Your task to perform on an android device: manage bookmarks in the chrome app Image 0: 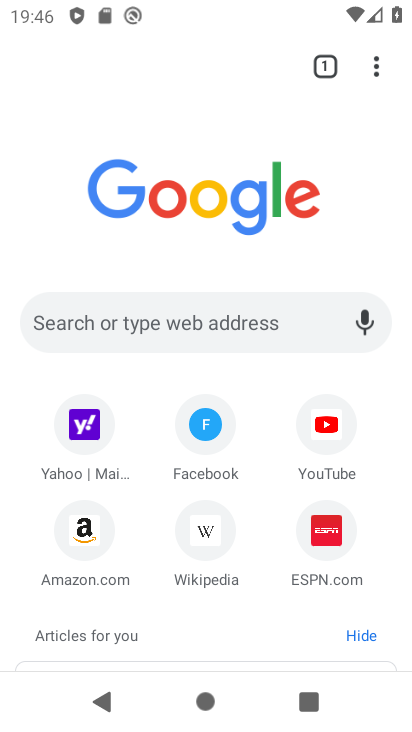
Step 0: click (375, 66)
Your task to perform on an android device: manage bookmarks in the chrome app Image 1: 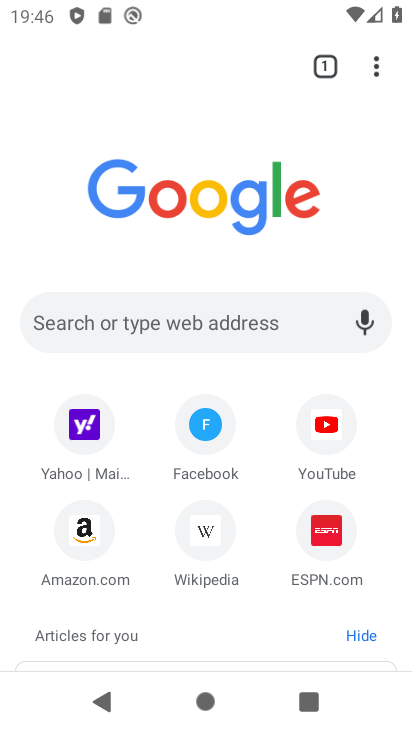
Step 1: click (377, 66)
Your task to perform on an android device: manage bookmarks in the chrome app Image 2: 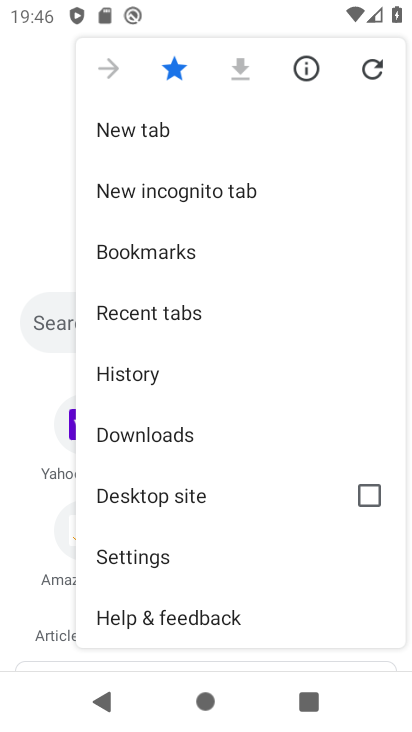
Step 2: click (203, 248)
Your task to perform on an android device: manage bookmarks in the chrome app Image 3: 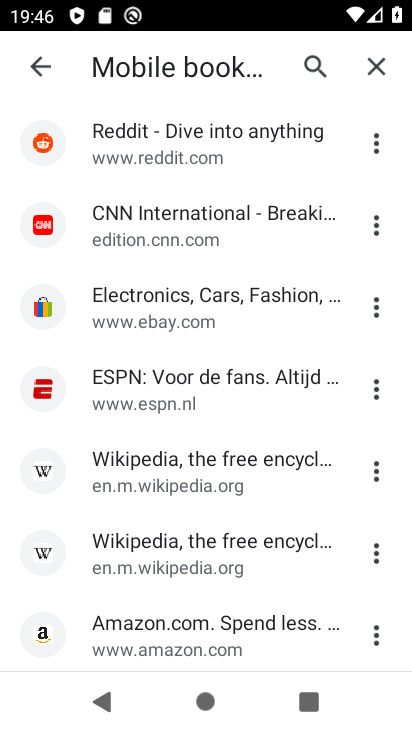
Step 3: click (375, 227)
Your task to perform on an android device: manage bookmarks in the chrome app Image 4: 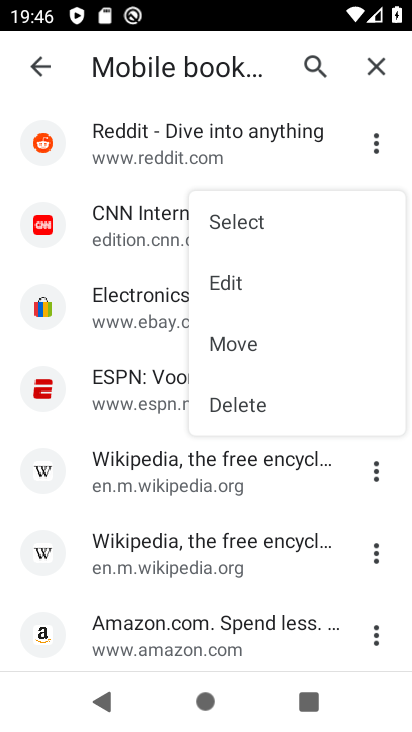
Step 4: click (278, 276)
Your task to perform on an android device: manage bookmarks in the chrome app Image 5: 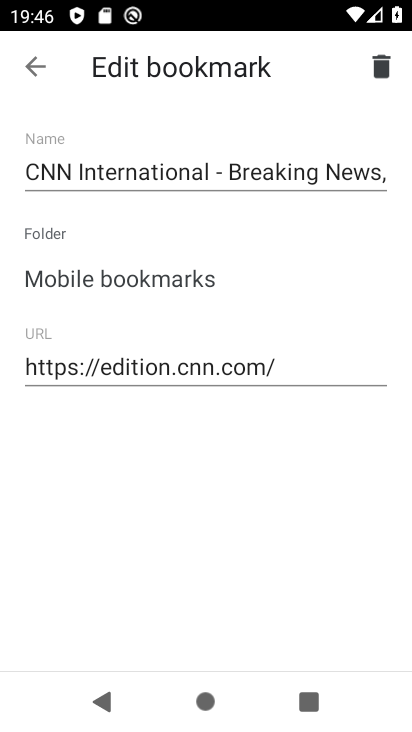
Step 5: click (32, 67)
Your task to perform on an android device: manage bookmarks in the chrome app Image 6: 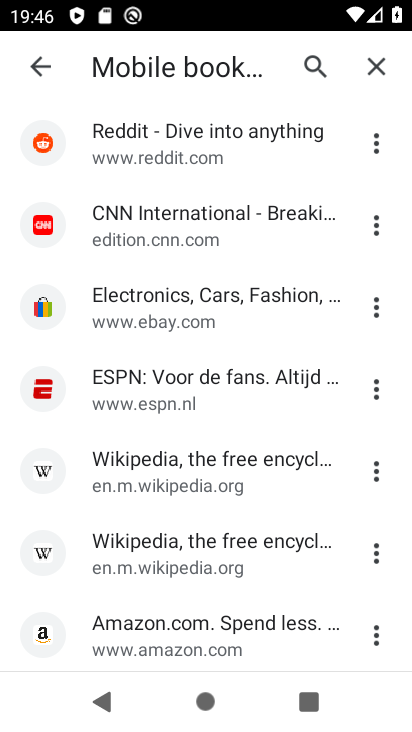
Step 6: task complete